Your task to perform on an android device: turn off picture-in-picture Image 0: 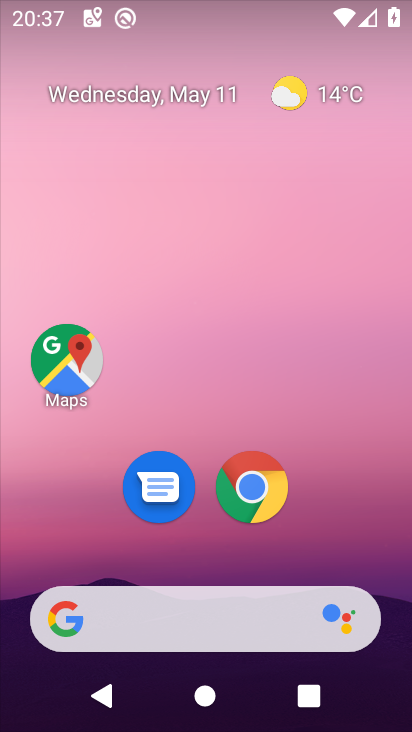
Step 0: click (251, 494)
Your task to perform on an android device: turn off picture-in-picture Image 1: 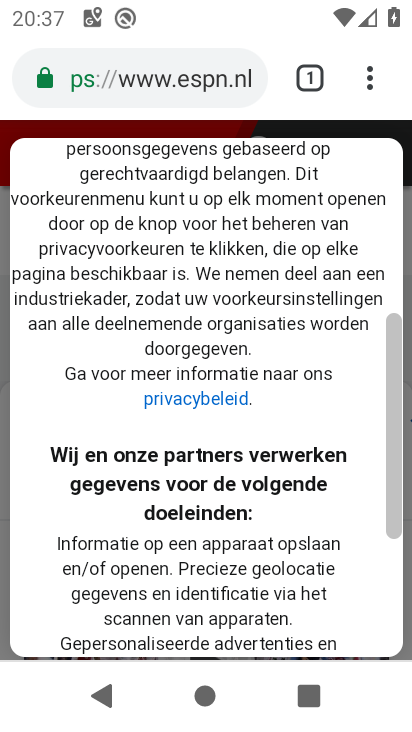
Step 1: press home button
Your task to perform on an android device: turn off picture-in-picture Image 2: 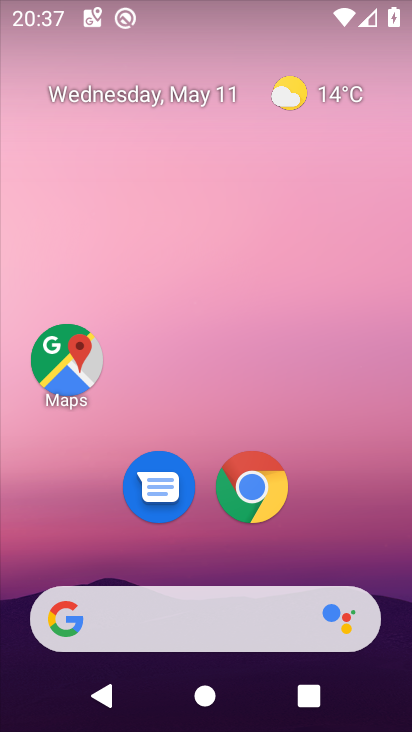
Step 2: click (256, 484)
Your task to perform on an android device: turn off picture-in-picture Image 3: 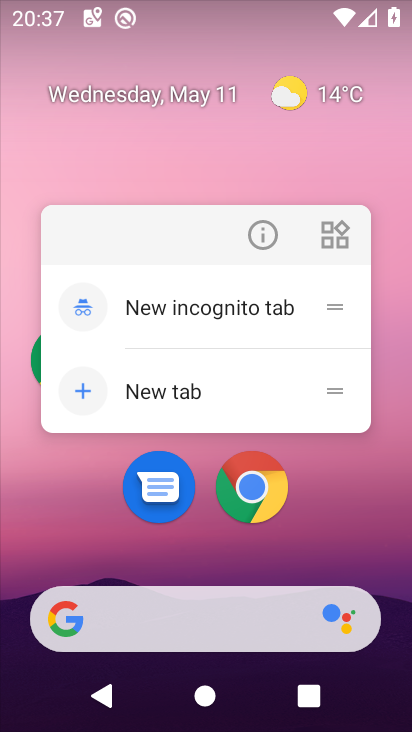
Step 3: click (264, 235)
Your task to perform on an android device: turn off picture-in-picture Image 4: 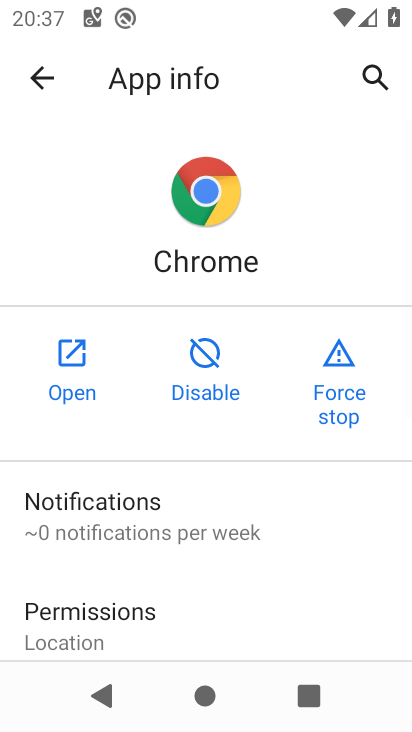
Step 4: drag from (261, 645) to (291, 218)
Your task to perform on an android device: turn off picture-in-picture Image 5: 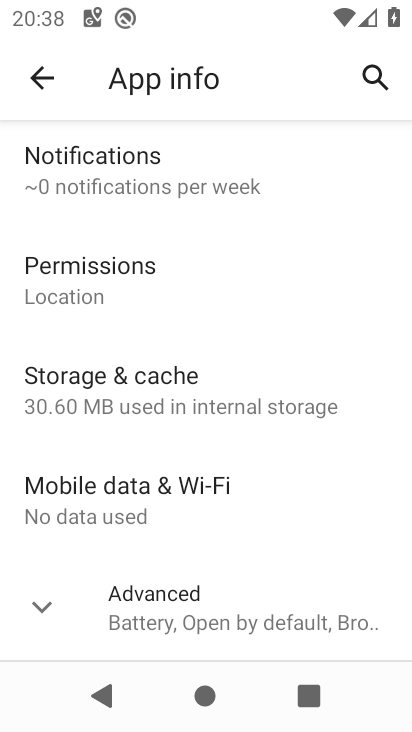
Step 5: click (182, 612)
Your task to perform on an android device: turn off picture-in-picture Image 6: 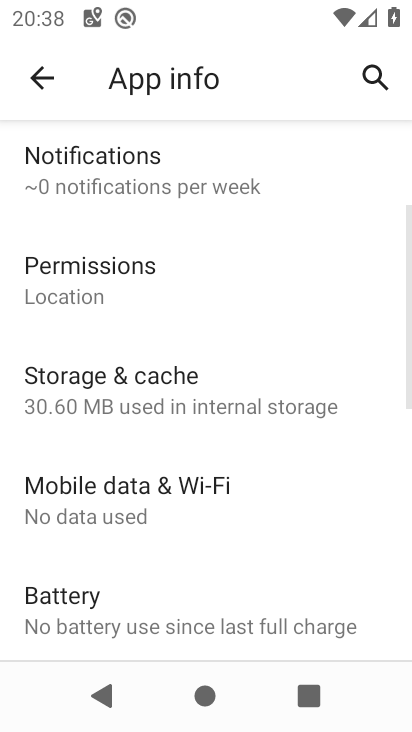
Step 6: drag from (191, 645) to (250, 244)
Your task to perform on an android device: turn off picture-in-picture Image 7: 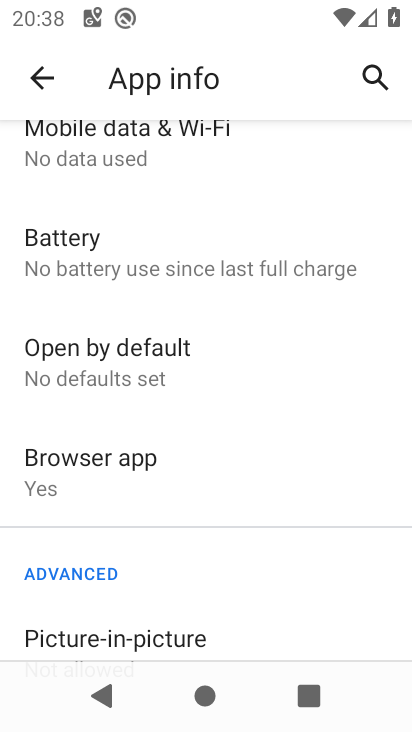
Step 7: drag from (203, 561) to (271, 314)
Your task to perform on an android device: turn off picture-in-picture Image 8: 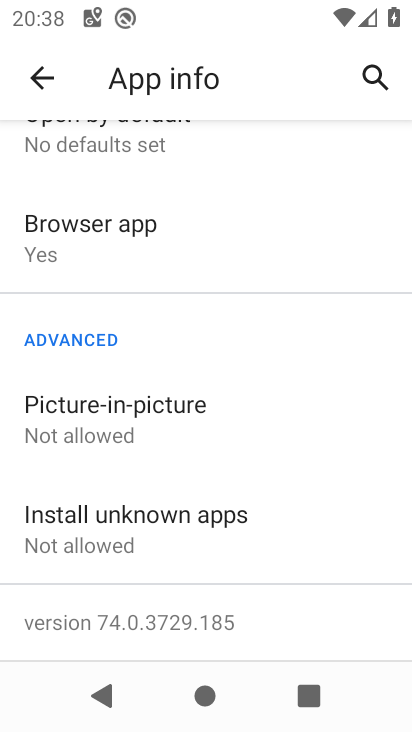
Step 8: click (129, 415)
Your task to perform on an android device: turn off picture-in-picture Image 9: 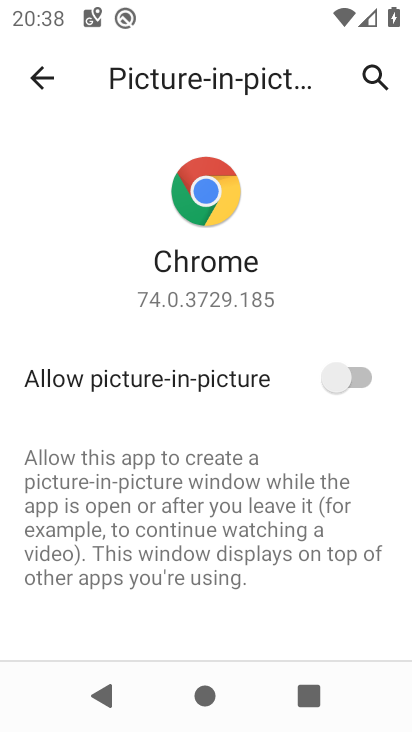
Step 9: task complete